Your task to perform on an android device: Do I have any events this weekend? Image 0: 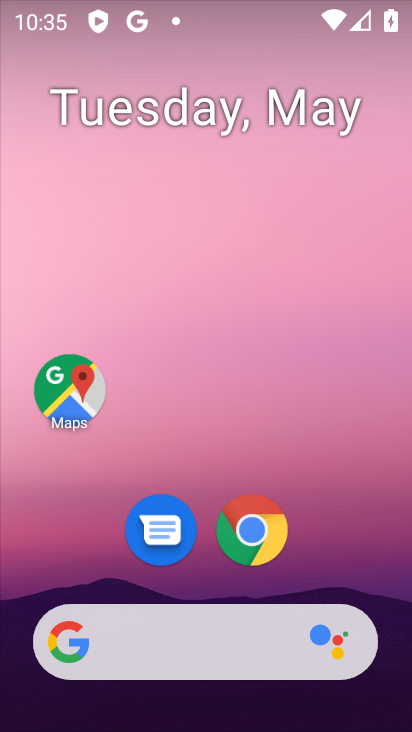
Step 0: drag from (326, 538) to (361, 145)
Your task to perform on an android device: Do I have any events this weekend? Image 1: 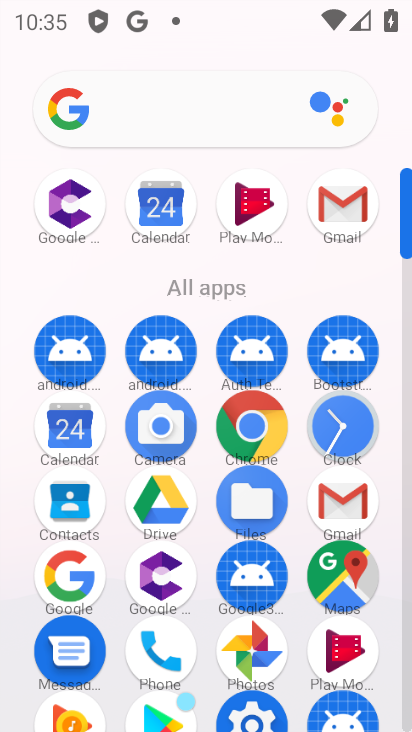
Step 1: click (68, 429)
Your task to perform on an android device: Do I have any events this weekend? Image 2: 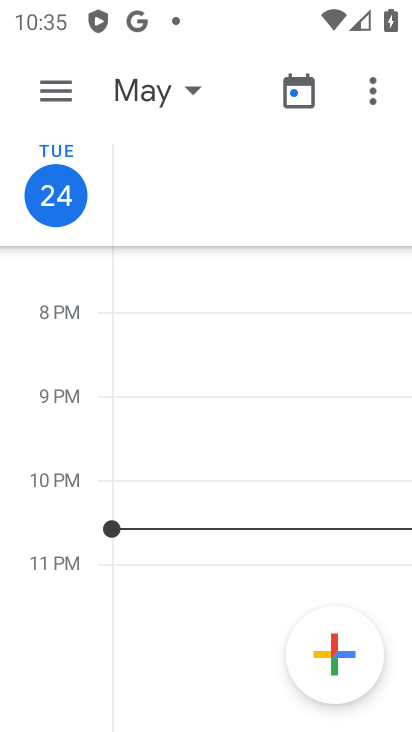
Step 2: click (60, 90)
Your task to perform on an android device: Do I have any events this weekend? Image 3: 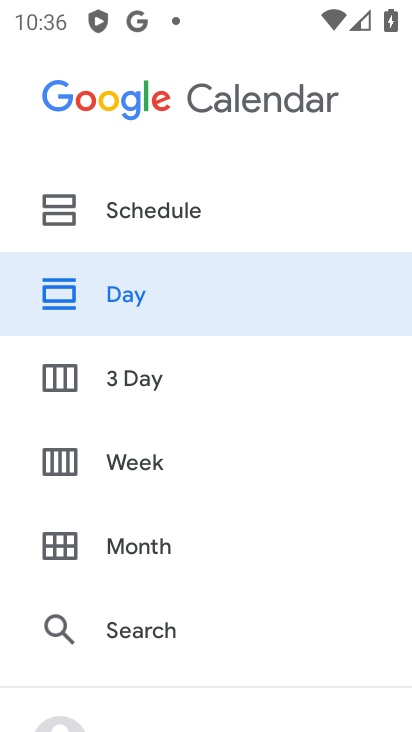
Step 3: click (119, 385)
Your task to perform on an android device: Do I have any events this weekend? Image 4: 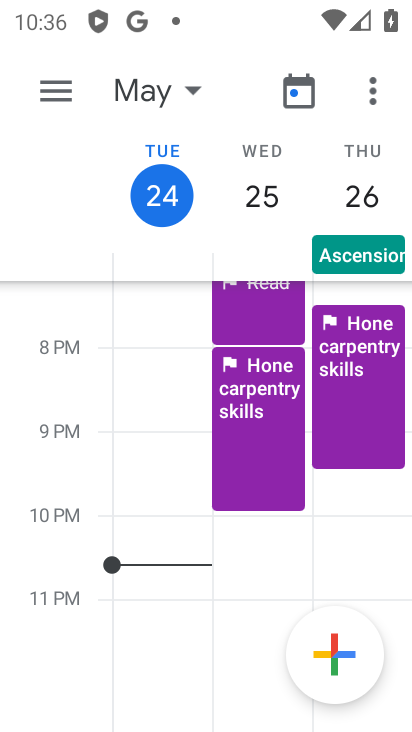
Step 4: task complete